Your task to perform on an android device: Show me productivity apps on the Play Store Image 0: 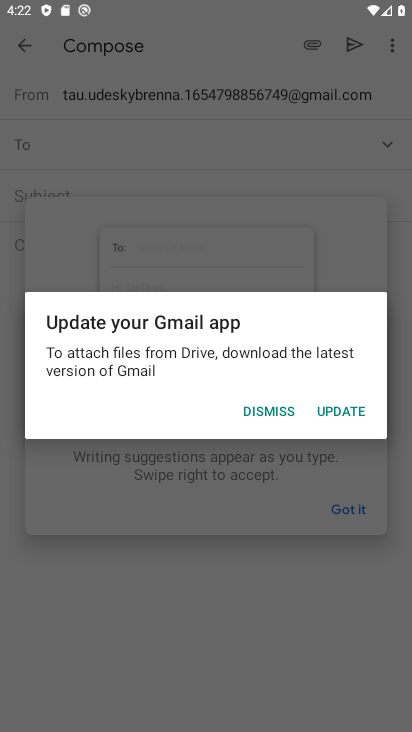
Step 0: press home button
Your task to perform on an android device: Show me productivity apps on the Play Store Image 1: 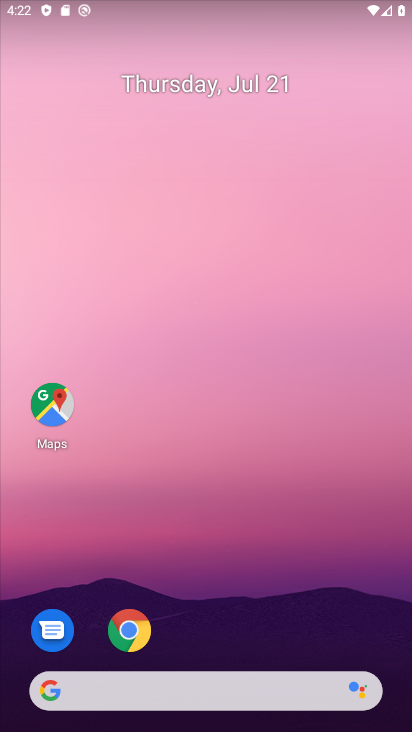
Step 1: drag from (267, 628) to (217, 240)
Your task to perform on an android device: Show me productivity apps on the Play Store Image 2: 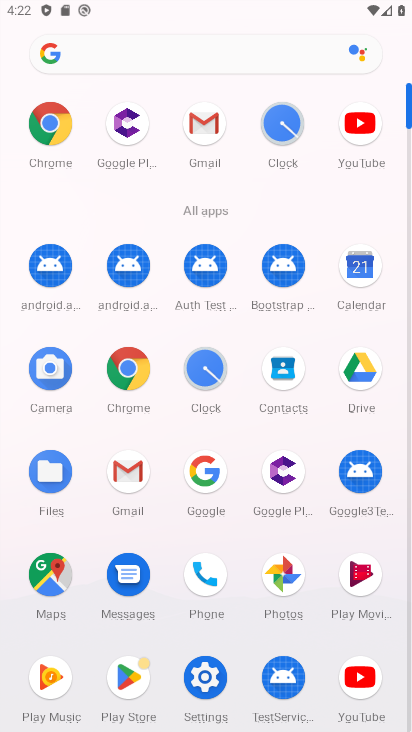
Step 2: click (133, 677)
Your task to perform on an android device: Show me productivity apps on the Play Store Image 3: 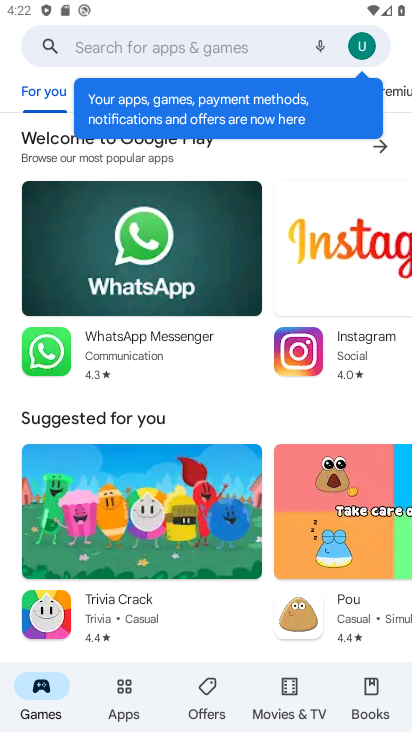
Step 3: click (140, 681)
Your task to perform on an android device: Show me productivity apps on the Play Store Image 4: 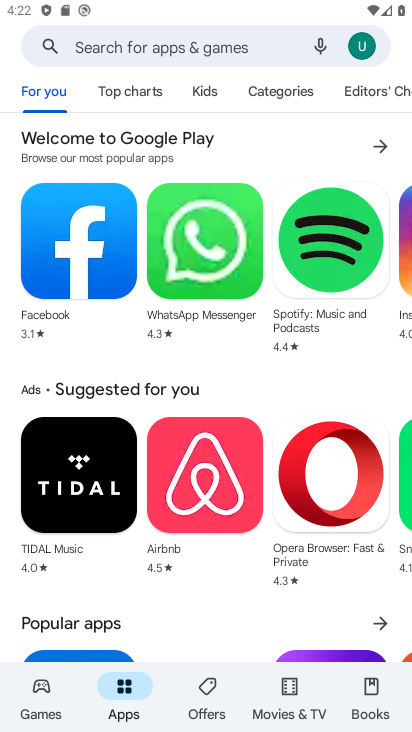
Step 4: click (290, 98)
Your task to perform on an android device: Show me productivity apps on the Play Store Image 5: 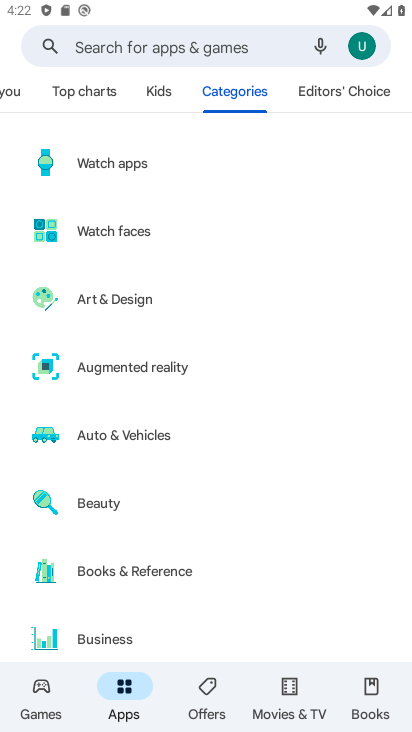
Step 5: drag from (239, 609) to (207, 251)
Your task to perform on an android device: Show me productivity apps on the Play Store Image 6: 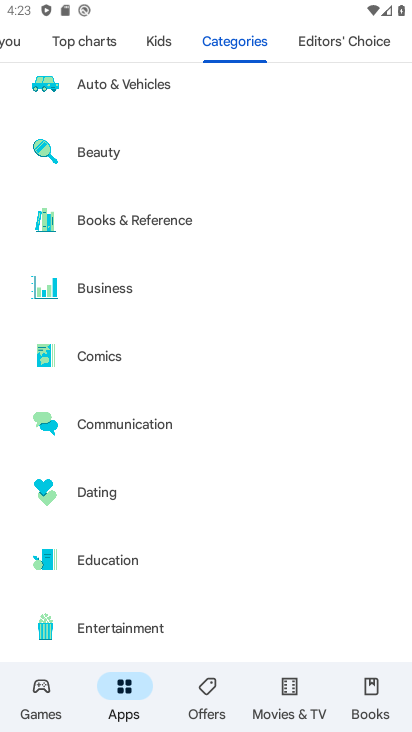
Step 6: drag from (153, 593) to (126, 133)
Your task to perform on an android device: Show me productivity apps on the Play Store Image 7: 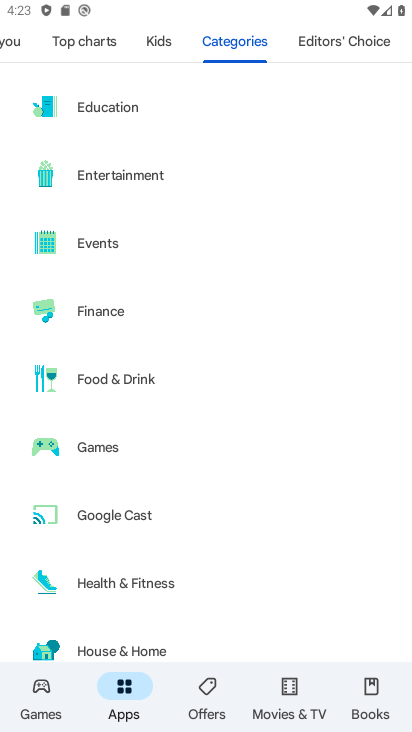
Step 7: drag from (170, 617) to (100, 228)
Your task to perform on an android device: Show me productivity apps on the Play Store Image 8: 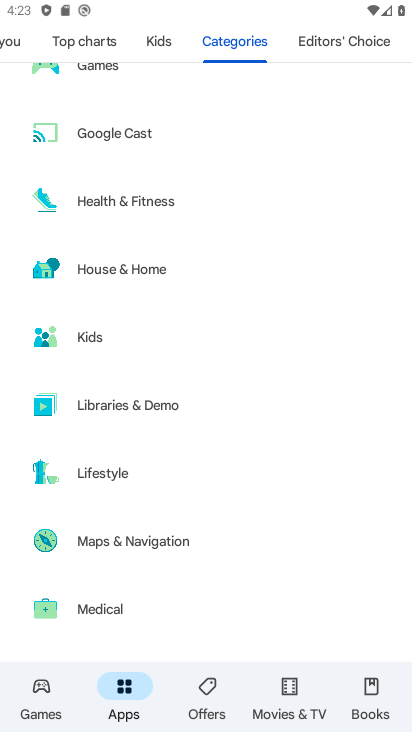
Step 8: drag from (154, 603) to (103, 141)
Your task to perform on an android device: Show me productivity apps on the Play Store Image 9: 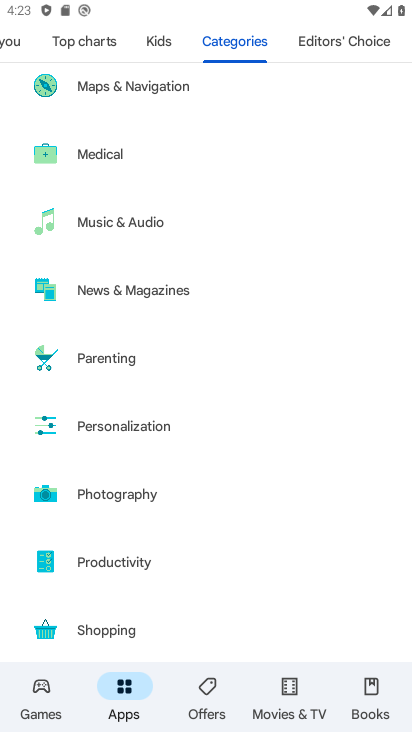
Step 9: click (134, 560)
Your task to perform on an android device: Show me productivity apps on the Play Store Image 10: 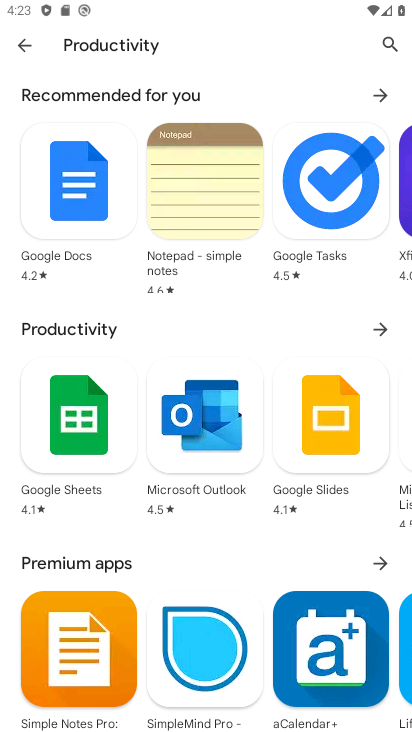
Step 10: task complete